Your task to perform on an android device: Turn on the flashlight Image 0: 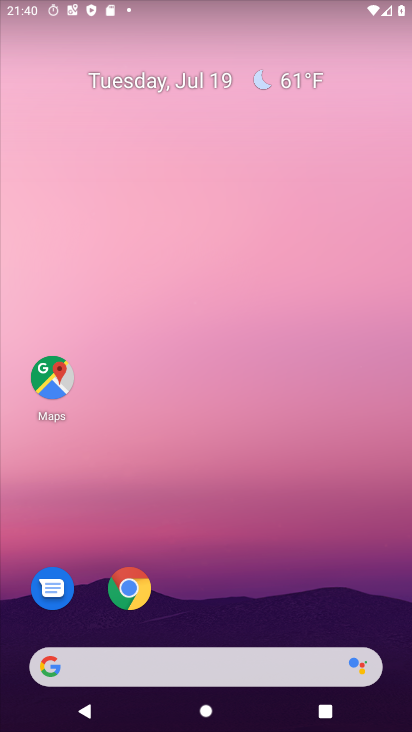
Step 0: press home button
Your task to perform on an android device: Turn on the flashlight Image 1: 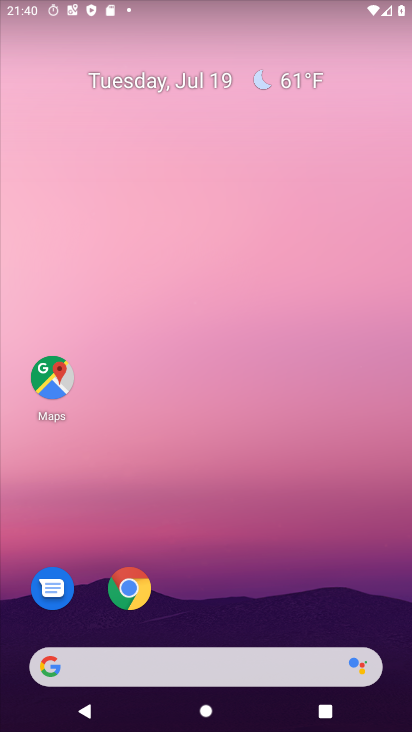
Step 1: click (208, 2)
Your task to perform on an android device: Turn on the flashlight Image 2: 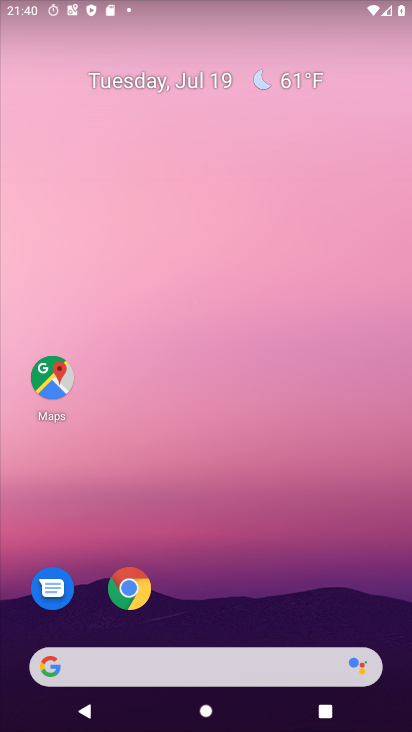
Step 2: press home button
Your task to perform on an android device: Turn on the flashlight Image 3: 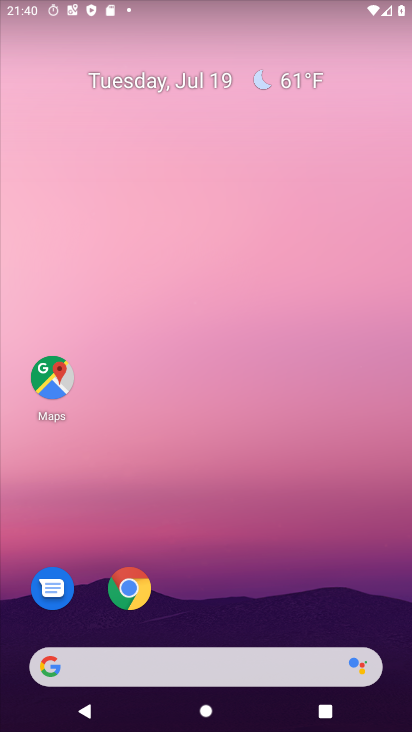
Step 3: drag from (220, 625) to (217, 44)
Your task to perform on an android device: Turn on the flashlight Image 4: 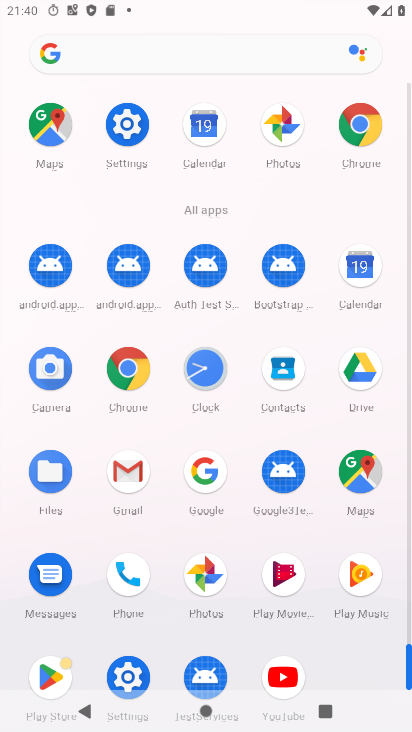
Step 4: click (123, 117)
Your task to perform on an android device: Turn on the flashlight Image 5: 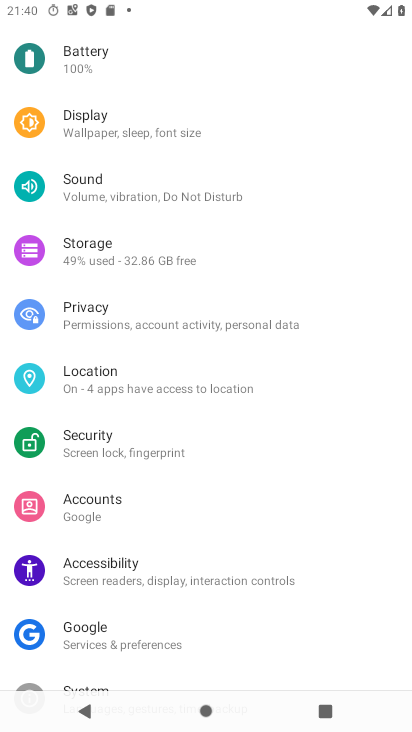
Step 5: drag from (153, 88) to (183, 564)
Your task to perform on an android device: Turn on the flashlight Image 6: 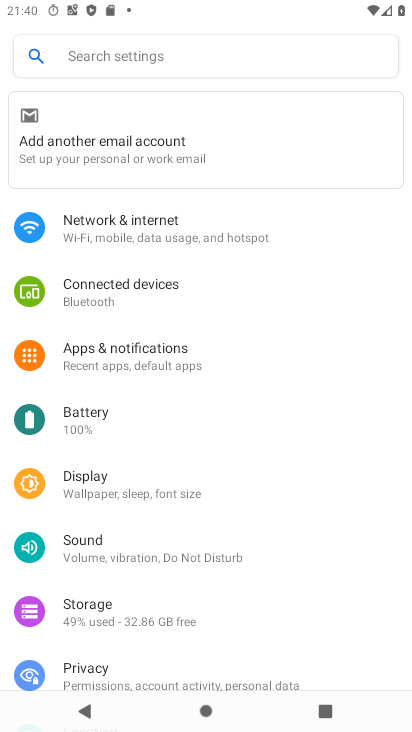
Step 6: click (115, 46)
Your task to perform on an android device: Turn on the flashlight Image 7: 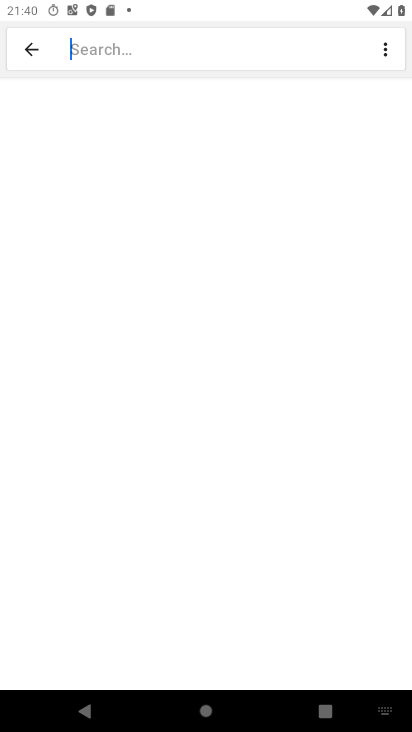
Step 7: type "flashlight"
Your task to perform on an android device: Turn on the flashlight Image 8: 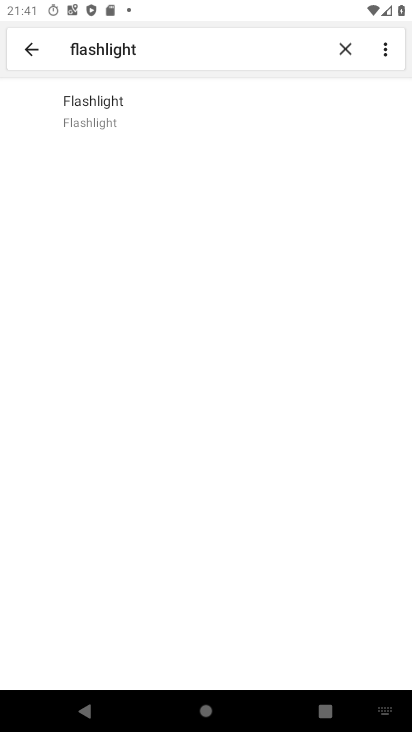
Step 8: click (128, 109)
Your task to perform on an android device: Turn on the flashlight Image 9: 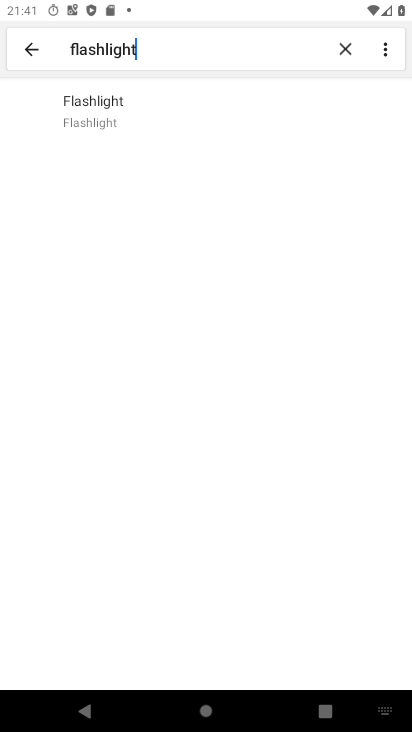
Step 9: click (147, 114)
Your task to perform on an android device: Turn on the flashlight Image 10: 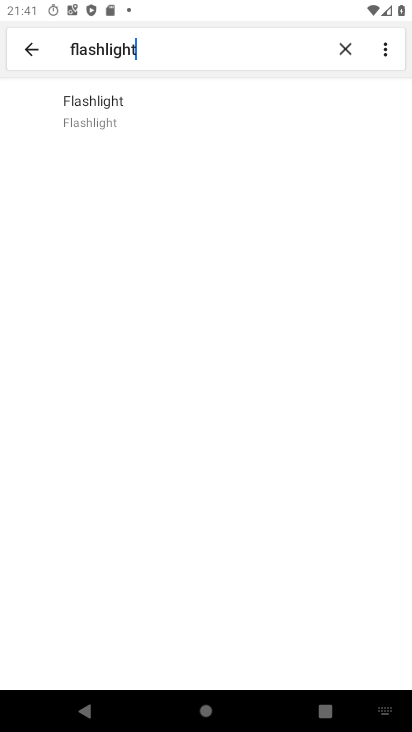
Step 10: task complete